Your task to perform on an android device: Open ESPN.com Image 0: 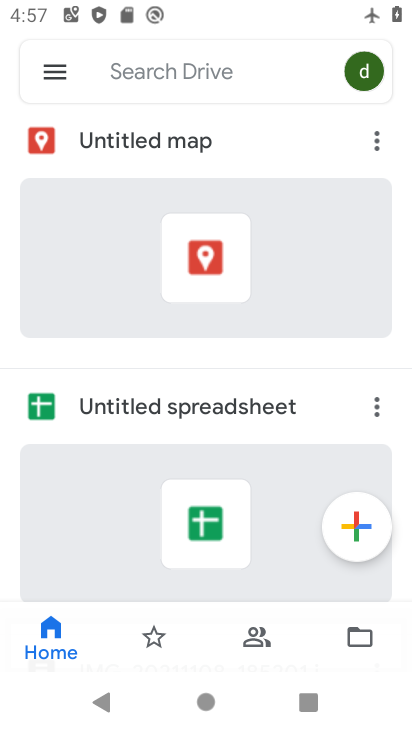
Step 0: press home button
Your task to perform on an android device: Open ESPN.com Image 1: 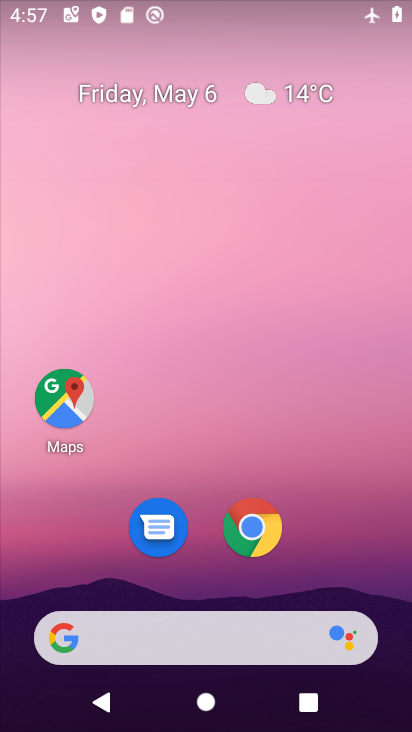
Step 1: click (252, 524)
Your task to perform on an android device: Open ESPN.com Image 2: 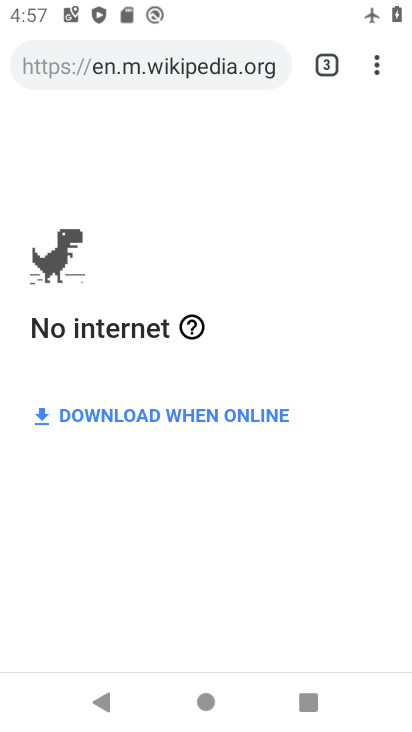
Step 2: task complete